Your task to perform on an android device: turn notification dots on Image 0: 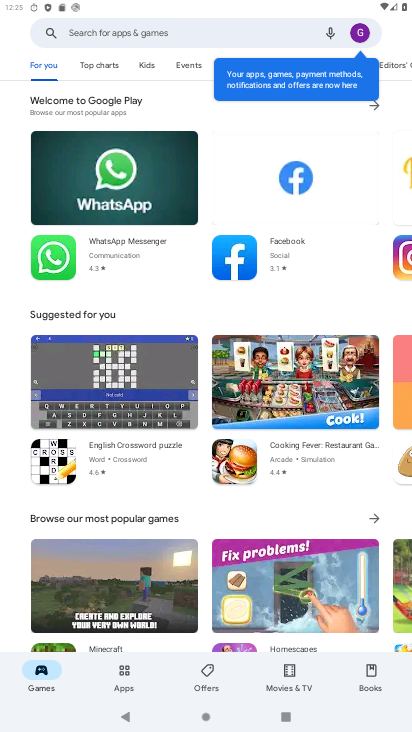
Step 0: press home button
Your task to perform on an android device: turn notification dots on Image 1: 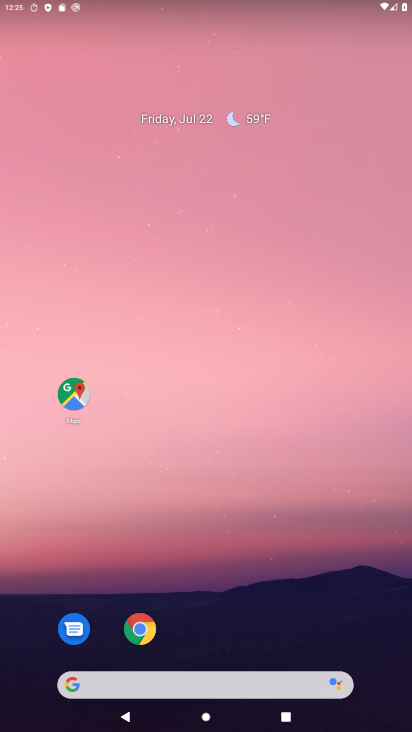
Step 1: drag from (244, 684) to (243, 74)
Your task to perform on an android device: turn notification dots on Image 2: 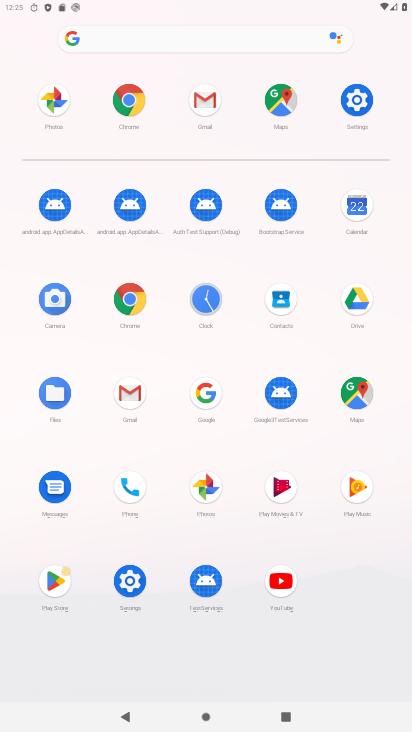
Step 2: click (355, 101)
Your task to perform on an android device: turn notification dots on Image 3: 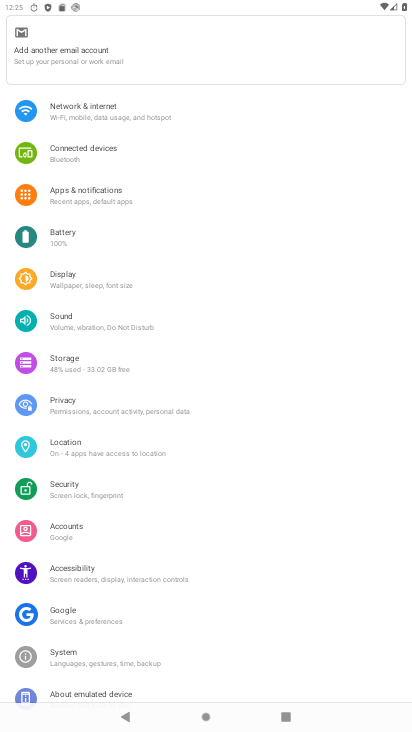
Step 3: click (57, 192)
Your task to perform on an android device: turn notification dots on Image 4: 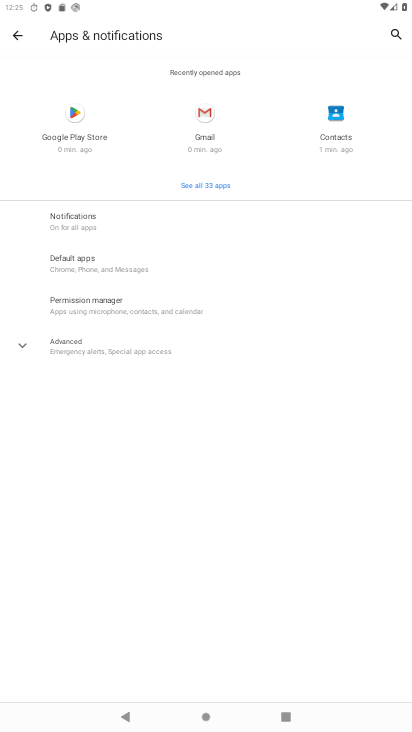
Step 4: click (85, 350)
Your task to perform on an android device: turn notification dots on Image 5: 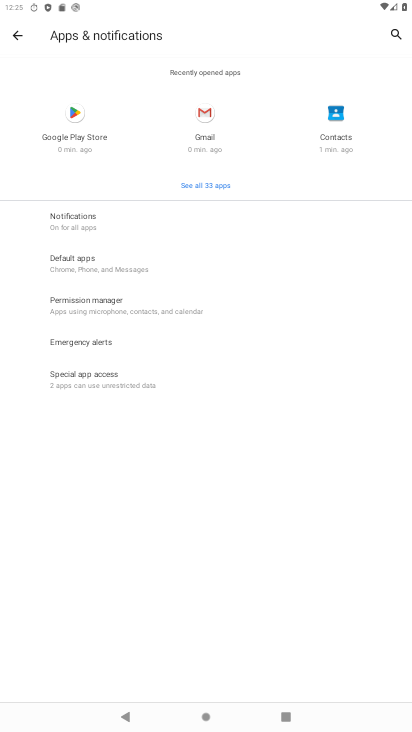
Step 5: click (99, 229)
Your task to perform on an android device: turn notification dots on Image 6: 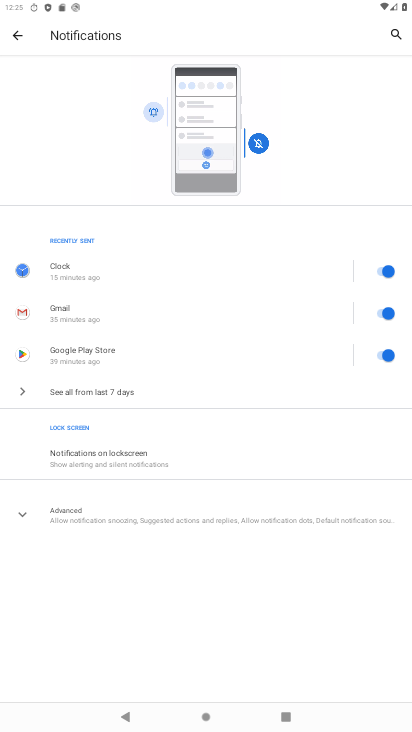
Step 6: click (159, 523)
Your task to perform on an android device: turn notification dots on Image 7: 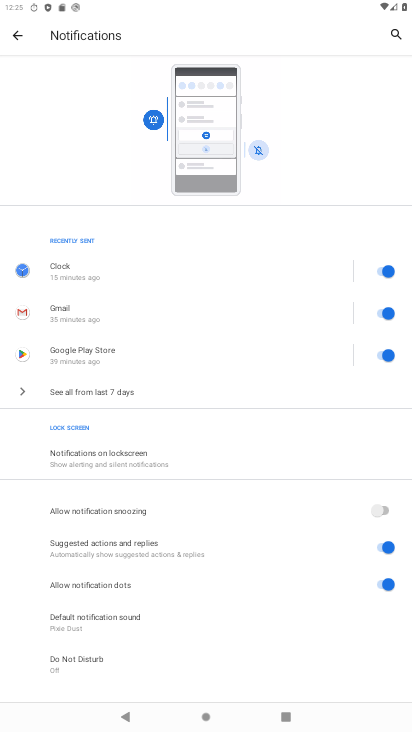
Step 7: task complete